Your task to perform on an android device: What is the news today? Image 0: 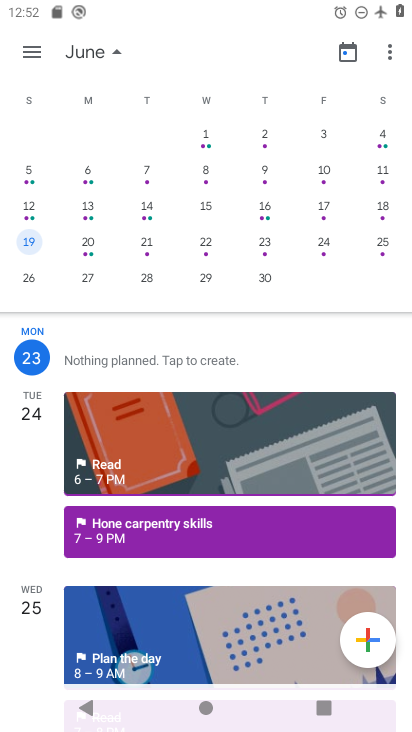
Step 0: press home button
Your task to perform on an android device: What is the news today? Image 1: 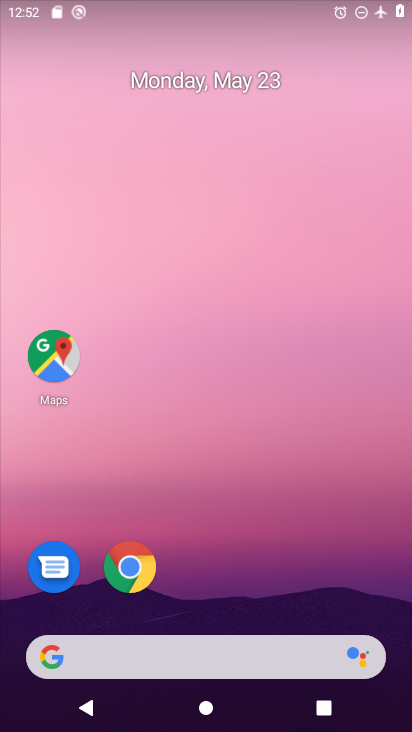
Step 1: drag from (242, 514) to (242, 183)
Your task to perform on an android device: What is the news today? Image 2: 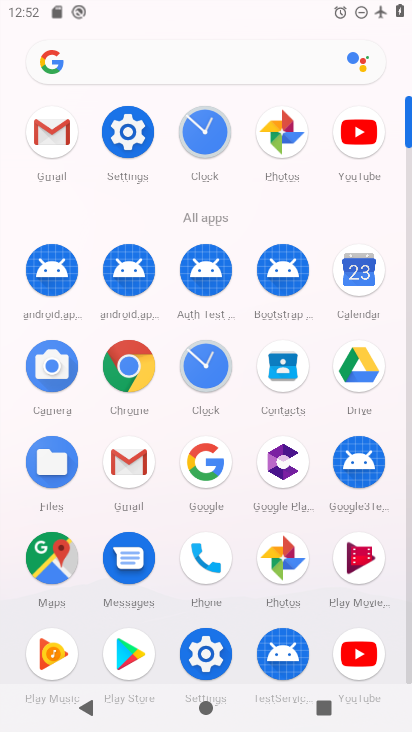
Step 2: click (221, 464)
Your task to perform on an android device: What is the news today? Image 3: 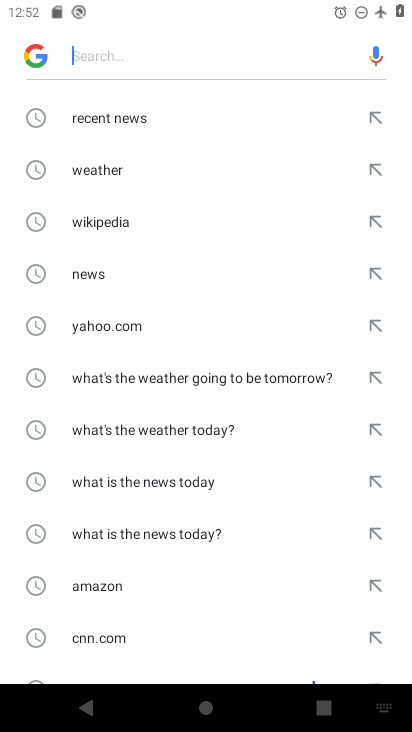
Step 3: click (128, 267)
Your task to perform on an android device: What is the news today? Image 4: 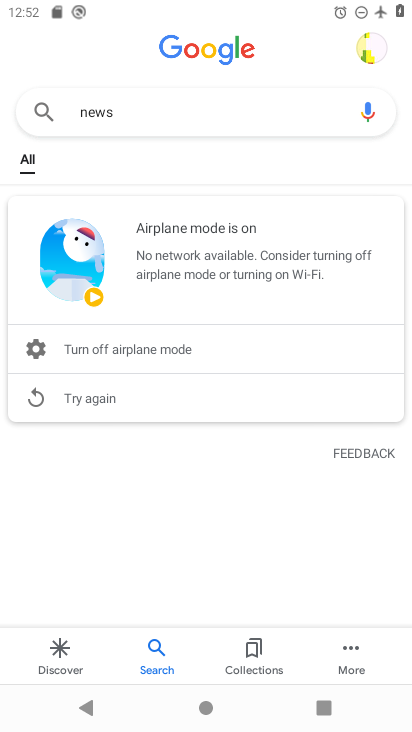
Step 4: task complete